Your task to perform on an android device: change alarm snooze length Image 0: 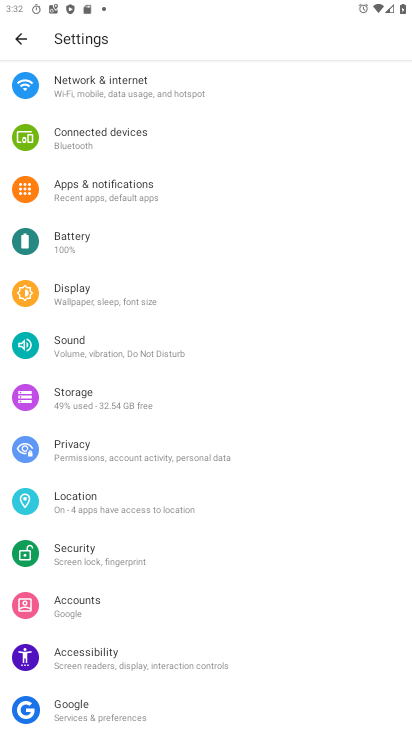
Step 0: press home button
Your task to perform on an android device: change alarm snooze length Image 1: 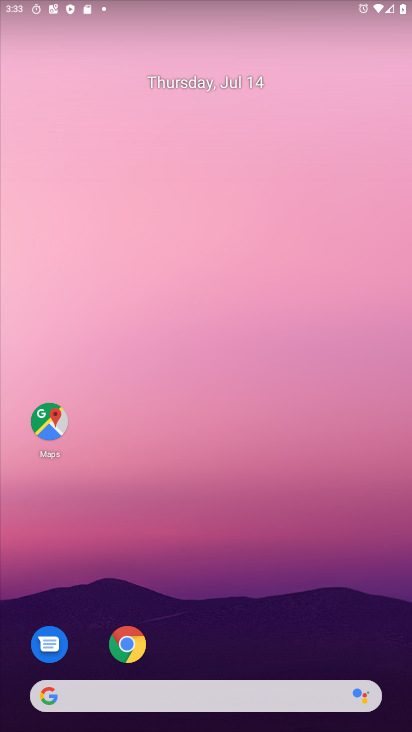
Step 1: drag from (29, 704) to (182, 269)
Your task to perform on an android device: change alarm snooze length Image 2: 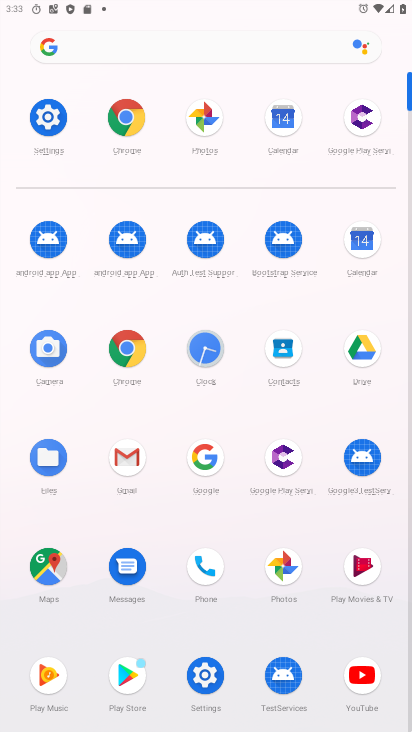
Step 2: click (205, 350)
Your task to perform on an android device: change alarm snooze length Image 3: 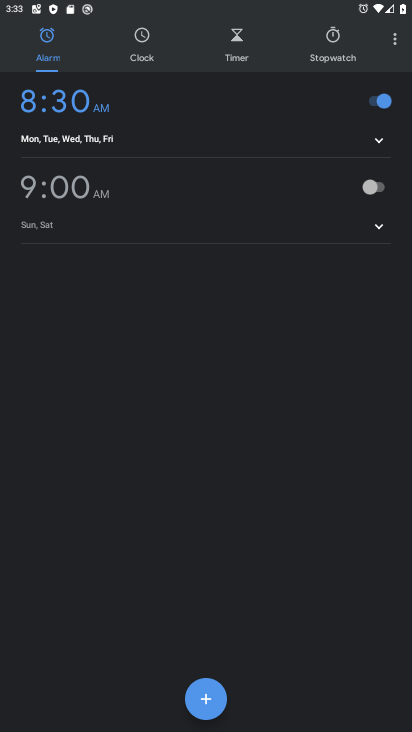
Step 3: click (389, 42)
Your task to perform on an android device: change alarm snooze length Image 4: 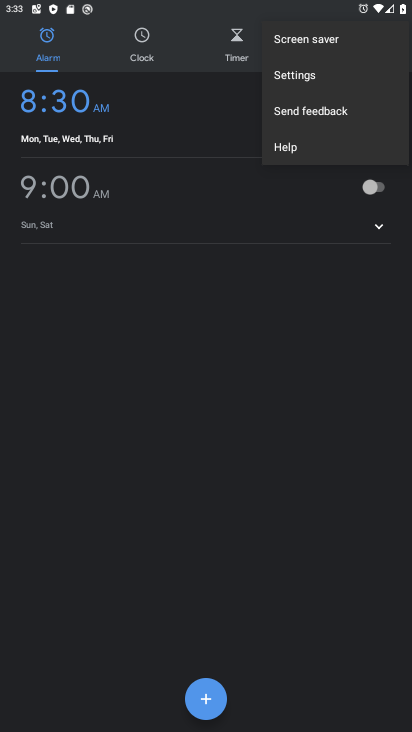
Step 4: click (303, 71)
Your task to perform on an android device: change alarm snooze length Image 5: 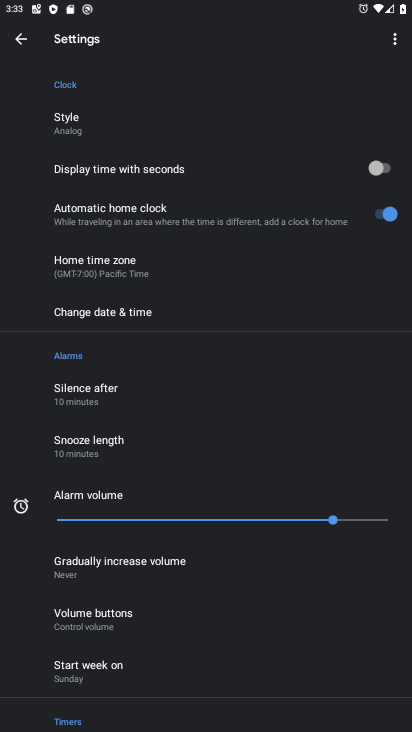
Step 5: click (93, 449)
Your task to perform on an android device: change alarm snooze length Image 6: 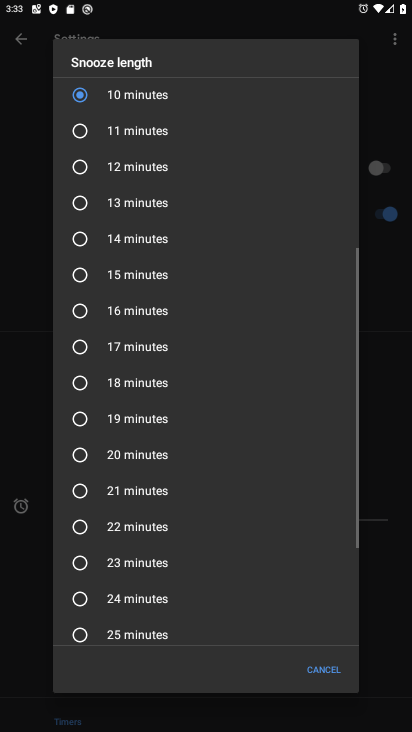
Step 6: click (77, 347)
Your task to perform on an android device: change alarm snooze length Image 7: 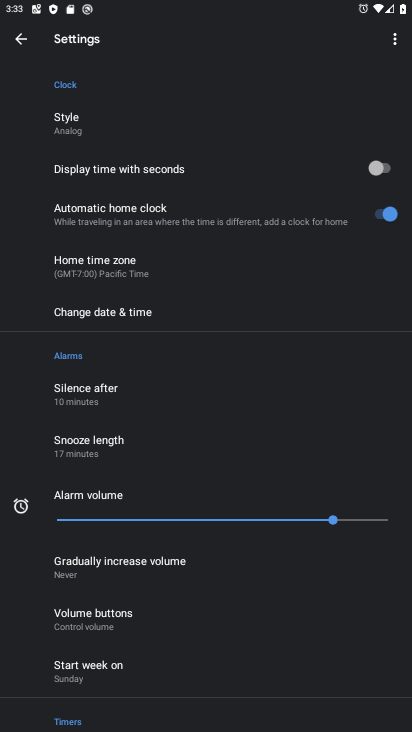
Step 7: task complete